Your task to perform on an android device: Open Chrome and go to settings Image 0: 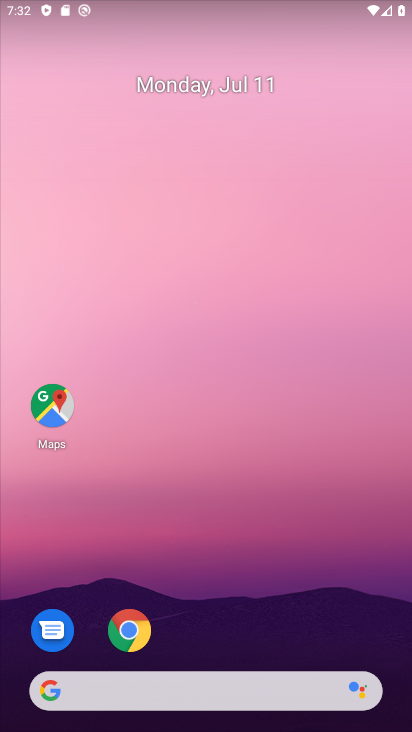
Step 0: drag from (212, 652) to (199, 136)
Your task to perform on an android device: Open Chrome and go to settings Image 1: 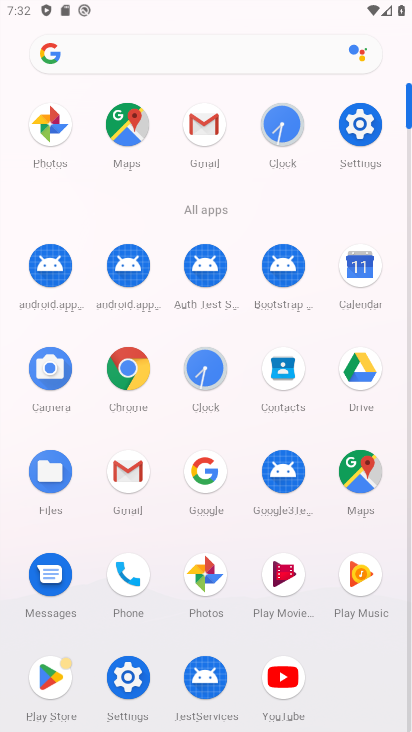
Step 1: click (358, 121)
Your task to perform on an android device: Open Chrome and go to settings Image 2: 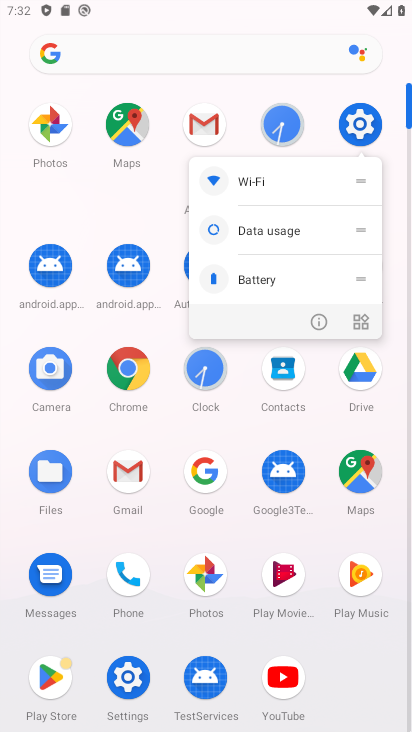
Step 2: click (313, 317)
Your task to perform on an android device: Open Chrome and go to settings Image 3: 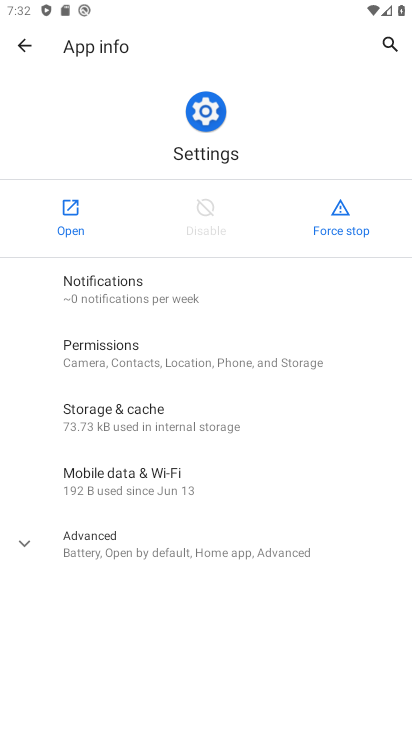
Step 3: click (68, 221)
Your task to perform on an android device: Open Chrome and go to settings Image 4: 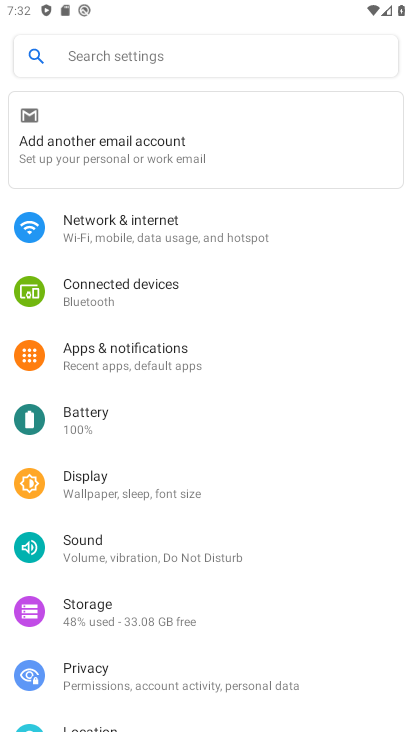
Step 4: press home button
Your task to perform on an android device: Open Chrome and go to settings Image 5: 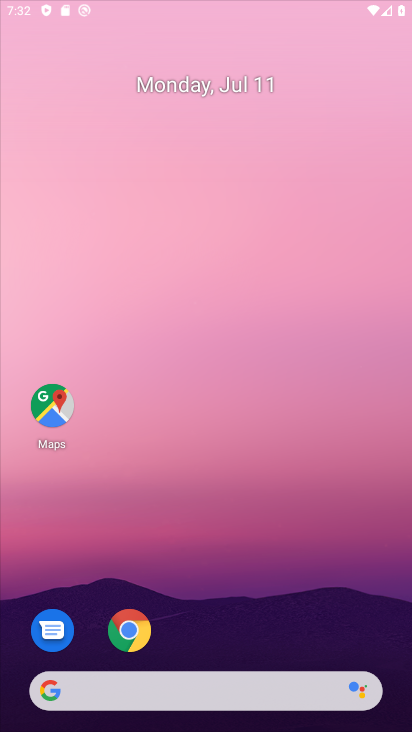
Step 5: drag from (203, 560) to (312, 68)
Your task to perform on an android device: Open Chrome and go to settings Image 6: 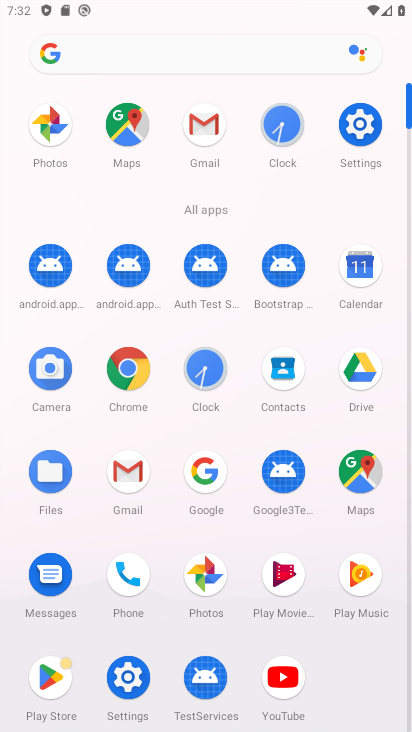
Step 6: click (131, 371)
Your task to perform on an android device: Open Chrome and go to settings Image 7: 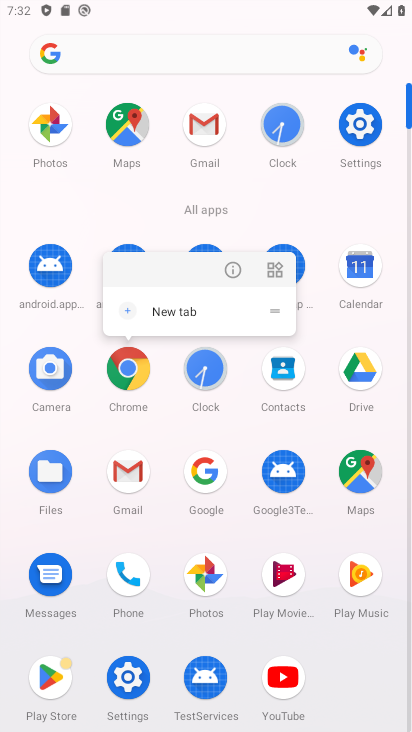
Step 7: click (227, 272)
Your task to perform on an android device: Open Chrome and go to settings Image 8: 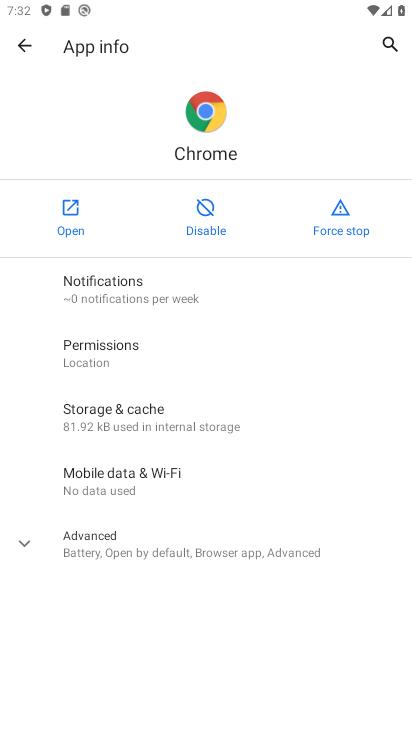
Step 8: click (62, 216)
Your task to perform on an android device: Open Chrome and go to settings Image 9: 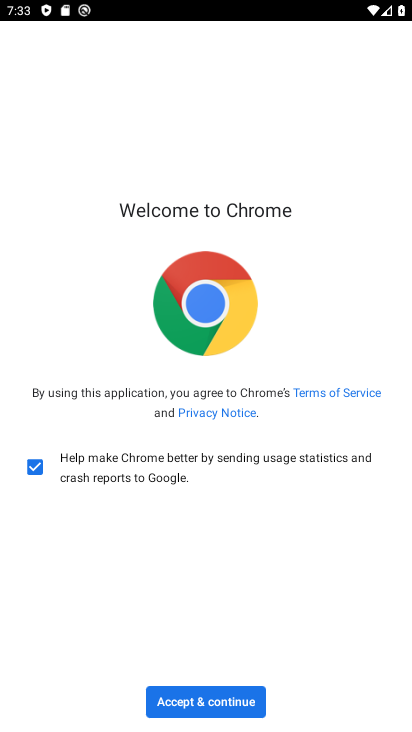
Step 9: click (221, 701)
Your task to perform on an android device: Open Chrome and go to settings Image 10: 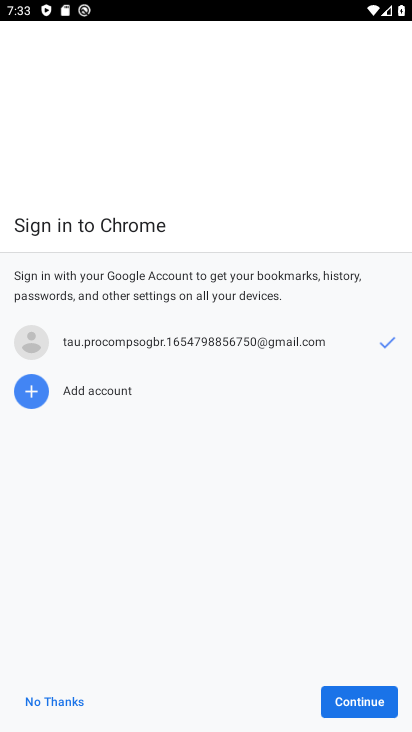
Step 10: click (89, 706)
Your task to perform on an android device: Open Chrome and go to settings Image 11: 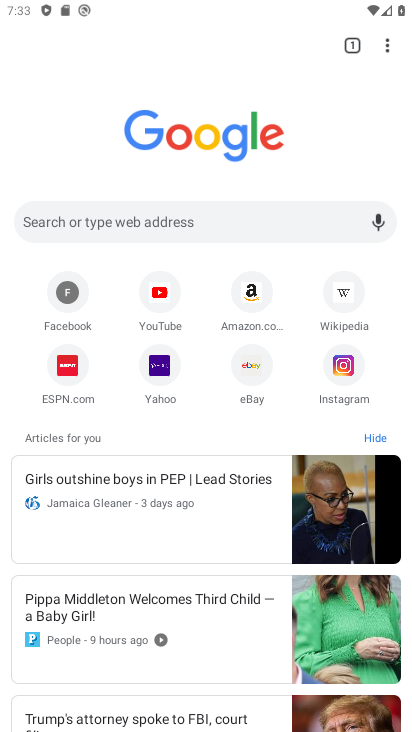
Step 11: click (384, 43)
Your task to perform on an android device: Open Chrome and go to settings Image 12: 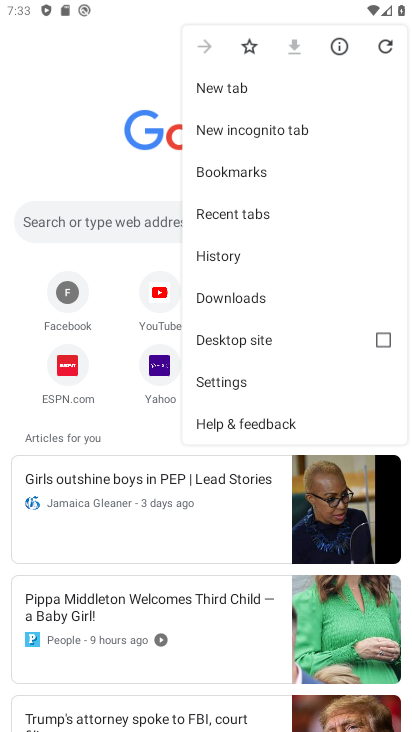
Step 12: click (256, 383)
Your task to perform on an android device: Open Chrome and go to settings Image 13: 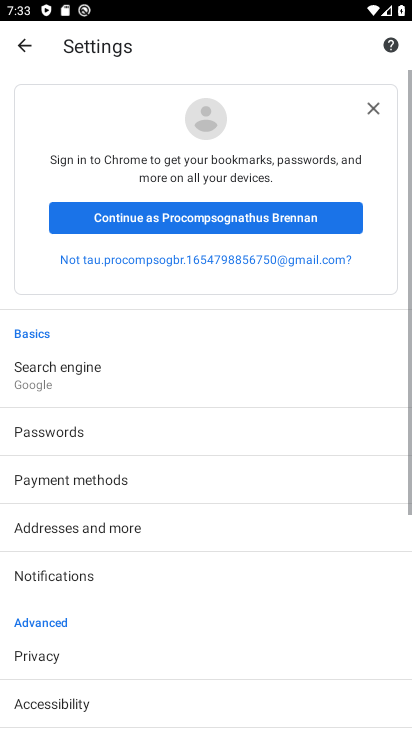
Step 13: task complete